Your task to perform on an android device: turn on showing notifications on the lock screen Image 0: 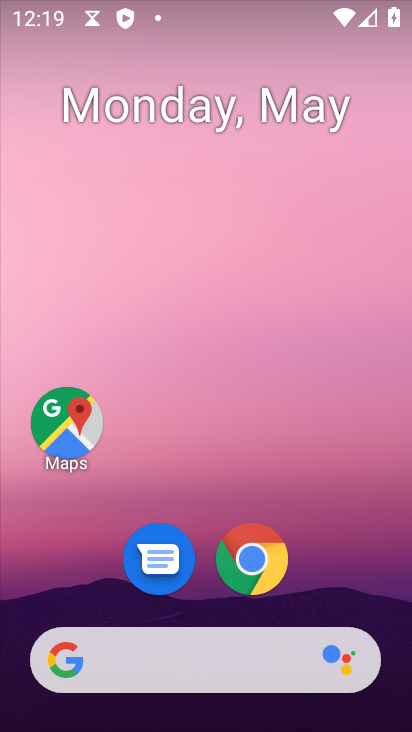
Step 0: drag from (76, 611) to (214, 81)
Your task to perform on an android device: turn on showing notifications on the lock screen Image 1: 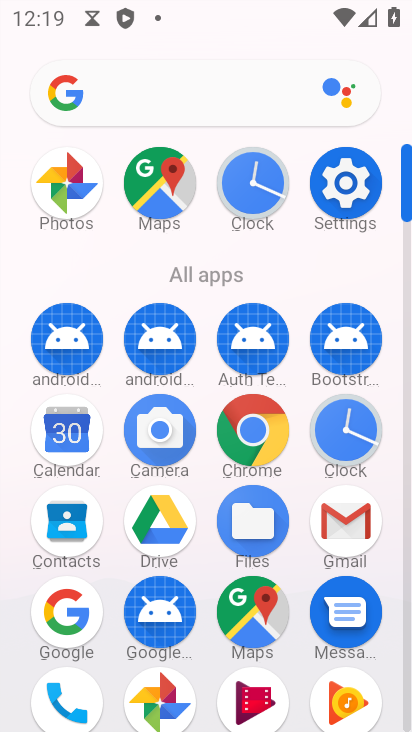
Step 1: drag from (188, 604) to (226, 378)
Your task to perform on an android device: turn on showing notifications on the lock screen Image 2: 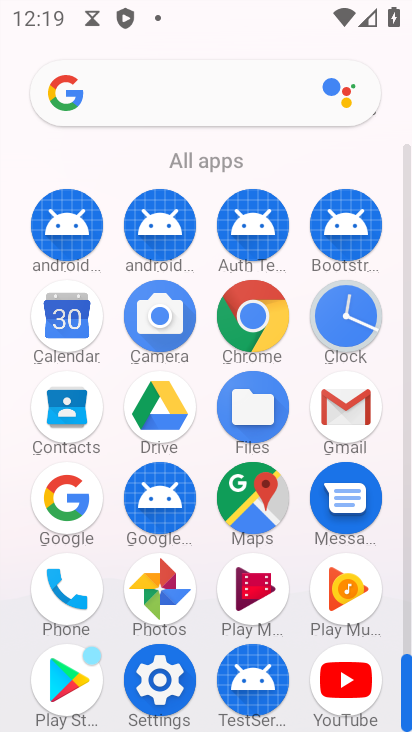
Step 2: click (160, 695)
Your task to perform on an android device: turn on showing notifications on the lock screen Image 3: 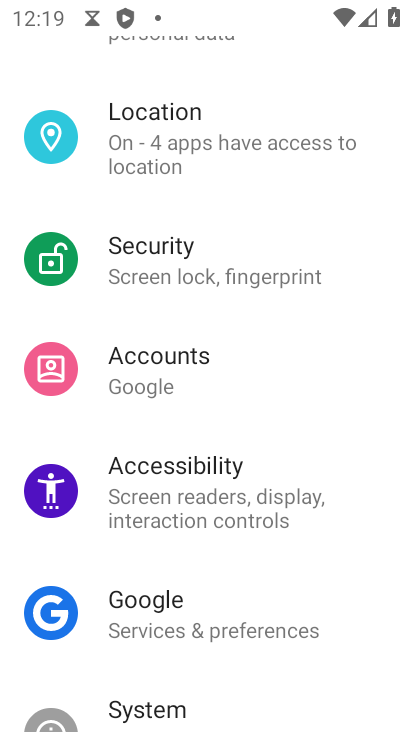
Step 3: drag from (208, 181) to (207, 657)
Your task to perform on an android device: turn on showing notifications on the lock screen Image 4: 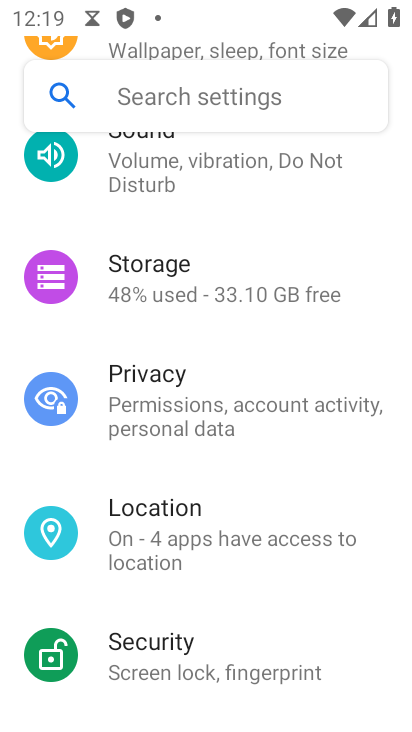
Step 4: drag from (218, 234) to (209, 588)
Your task to perform on an android device: turn on showing notifications on the lock screen Image 5: 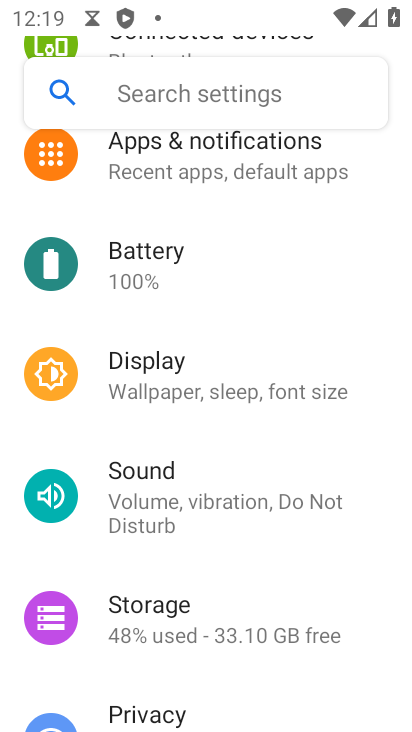
Step 5: click (208, 183)
Your task to perform on an android device: turn on showing notifications on the lock screen Image 6: 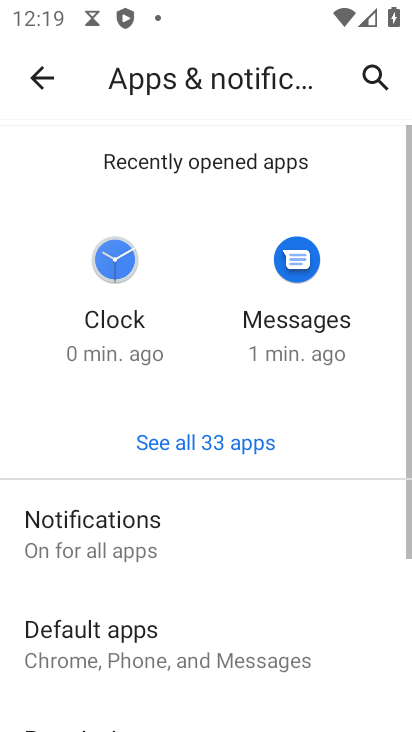
Step 6: click (174, 536)
Your task to perform on an android device: turn on showing notifications on the lock screen Image 7: 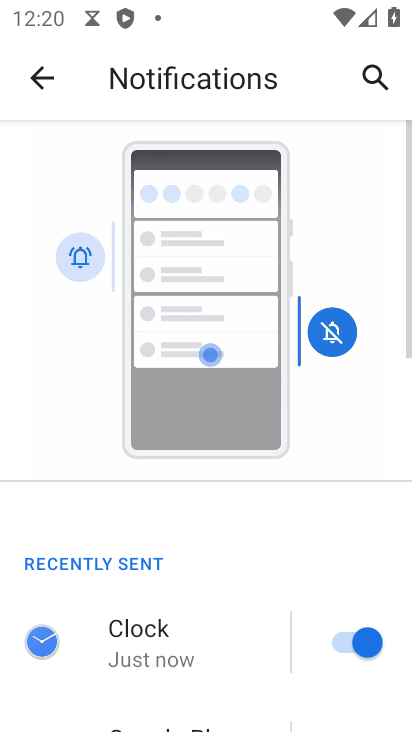
Step 7: drag from (183, 619) to (274, 188)
Your task to perform on an android device: turn on showing notifications on the lock screen Image 8: 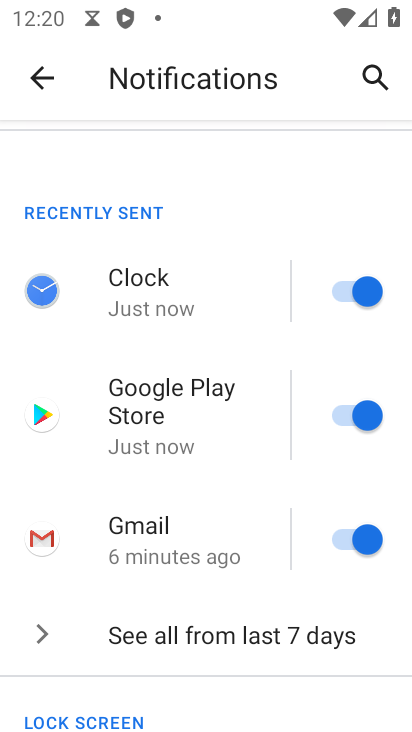
Step 8: drag from (208, 642) to (246, 308)
Your task to perform on an android device: turn on showing notifications on the lock screen Image 9: 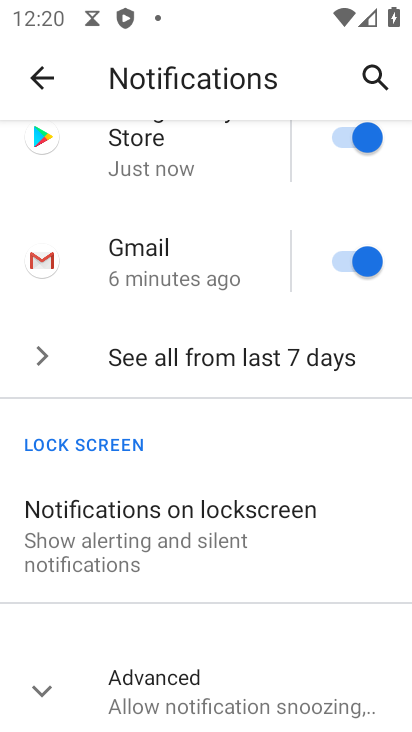
Step 9: click (210, 561)
Your task to perform on an android device: turn on showing notifications on the lock screen Image 10: 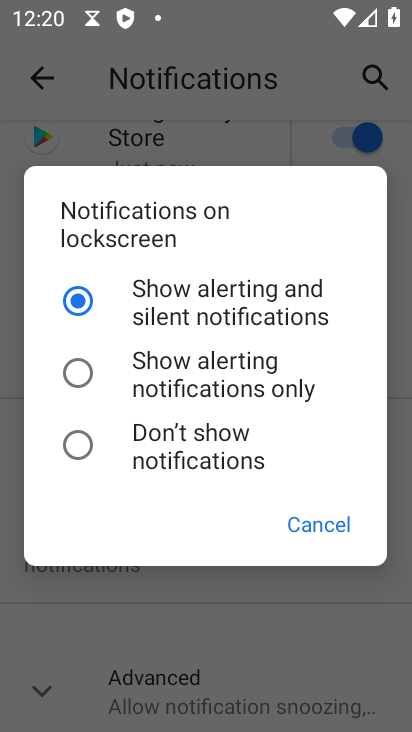
Step 10: task complete